Your task to perform on an android device: choose inbox layout in the gmail app Image 0: 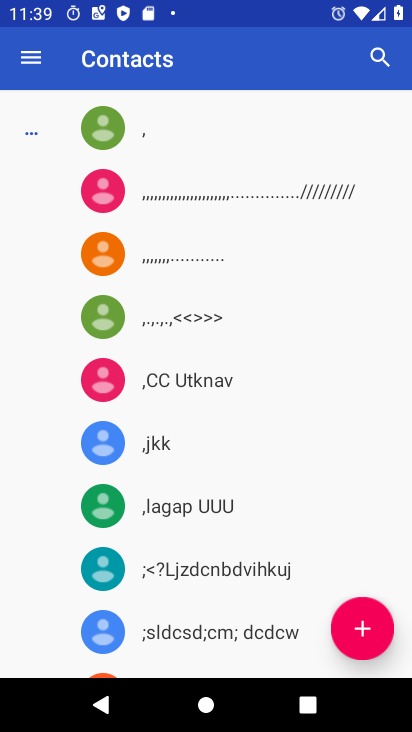
Step 0: press home button
Your task to perform on an android device: choose inbox layout in the gmail app Image 1: 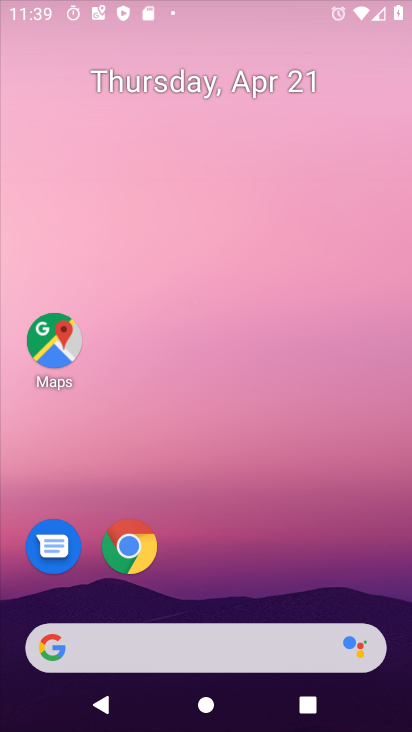
Step 1: drag from (253, 327) to (233, 26)
Your task to perform on an android device: choose inbox layout in the gmail app Image 2: 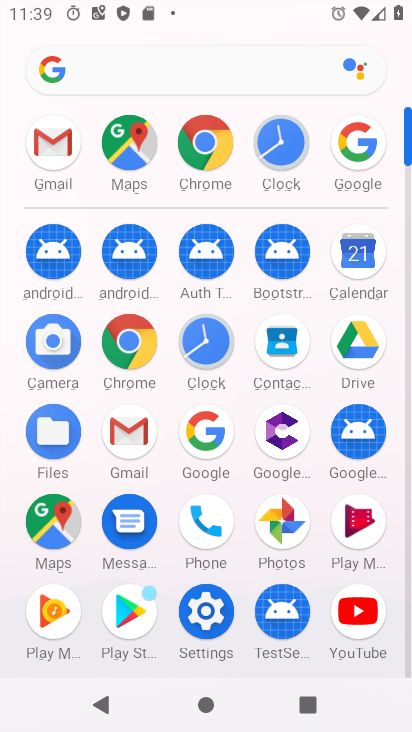
Step 2: click (58, 159)
Your task to perform on an android device: choose inbox layout in the gmail app Image 3: 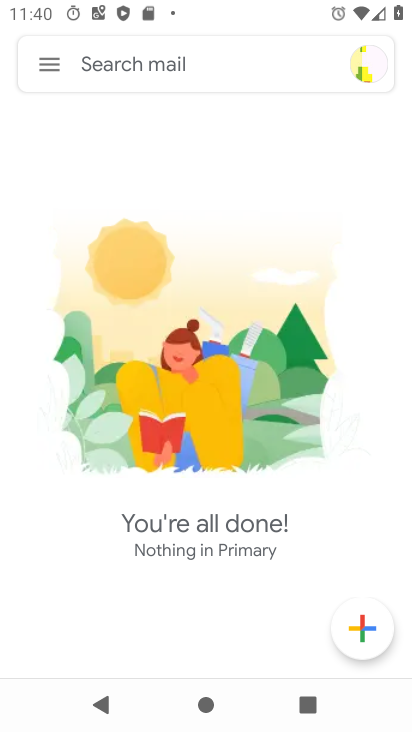
Step 3: click (44, 63)
Your task to perform on an android device: choose inbox layout in the gmail app Image 4: 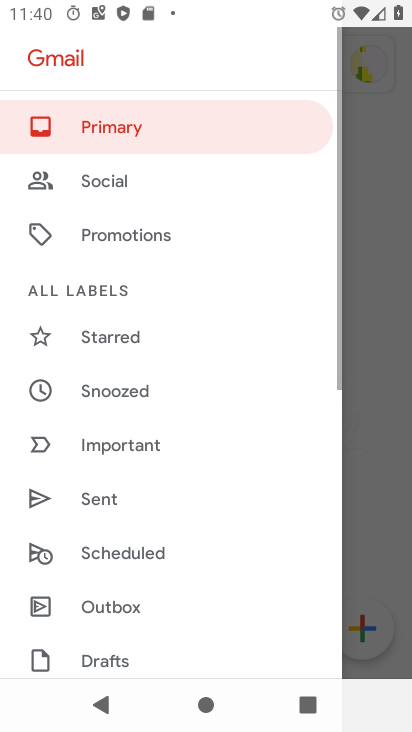
Step 4: drag from (204, 589) to (239, 61)
Your task to perform on an android device: choose inbox layout in the gmail app Image 5: 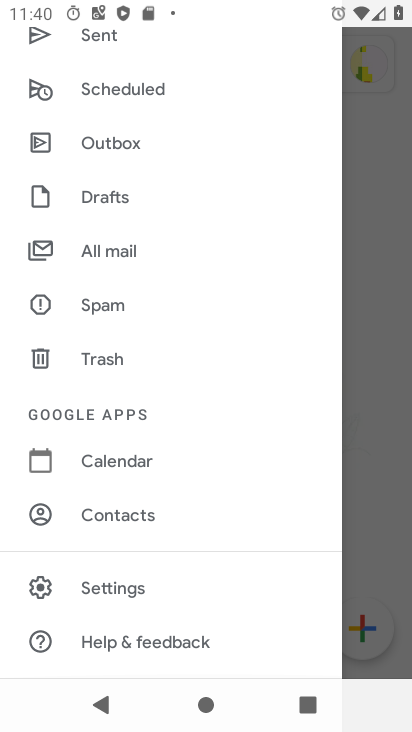
Step 5: click (118, 589)
Your task to perform on an android device: choose inbox layout in the gmail app Image 6: 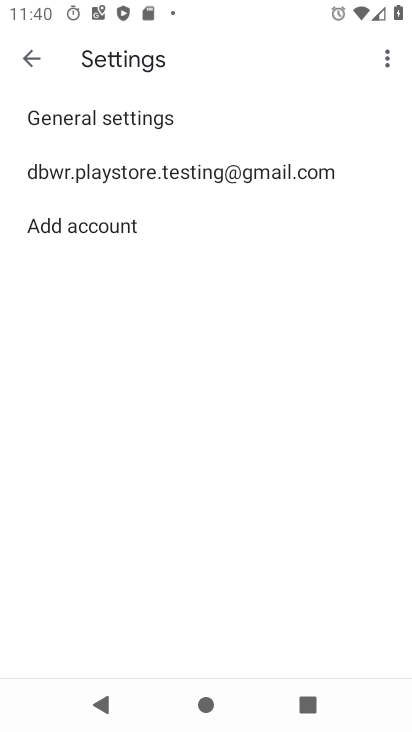
Step 6: click (136, 168)
Your task to perform on an android device: choose inbox layout in the gmail app Image 7: 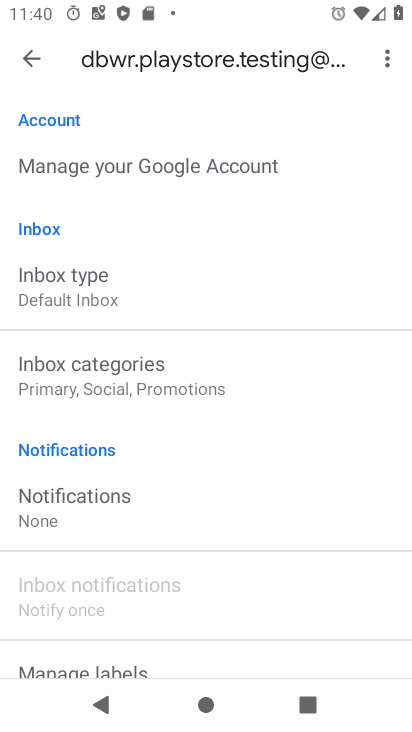
Step 7: click (90, 296)
Your task to perform on an android device: choose inbox layout in the gmail app Image 8: 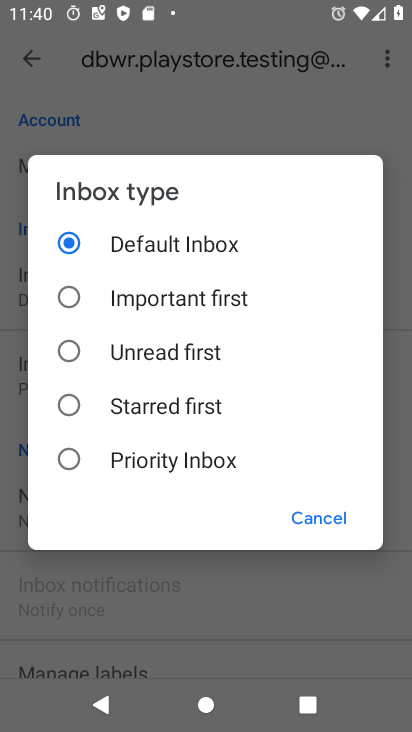
Step 8: click (68, 458)
Your task to perform on an android device: choose inbox layout in the gmail app Image 9: 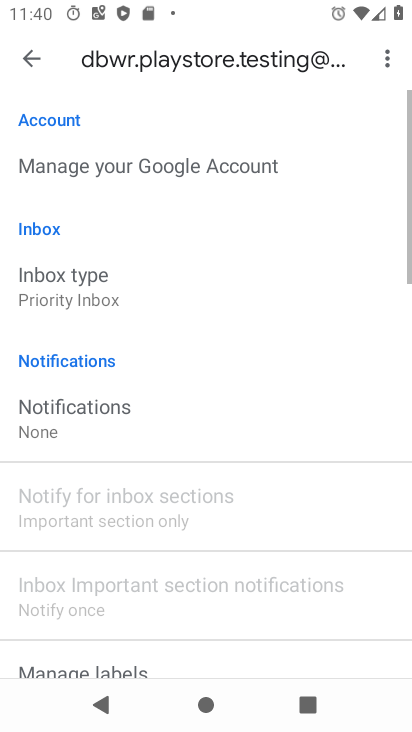
Step 9: task complete